Your task to perform on an android device: Search for razer blackwidow on ebay.com, select the first entry, add it to the cart, then select checkout. Image 0: 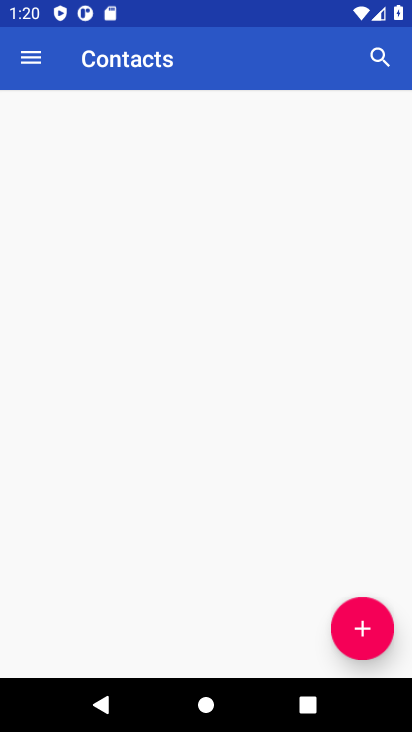
Step 0: press home button
Your task to perform on an android device: Search for razer blackwidow on ebay.com, select the first entry, add it to the cart, then select checkout. Image 1: 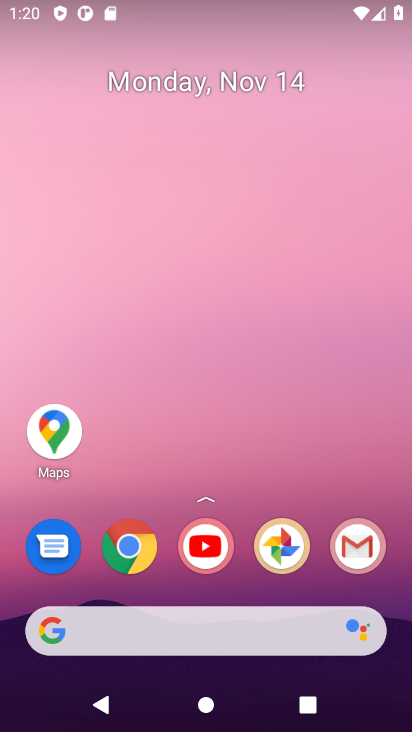
Step 1: drag from (222, 535) to (210, 54)
Your task to perform on an android device: Search for razer blackwidow on ebay.com, select the first entry, add it to the cart, then select checkout. Image 2: 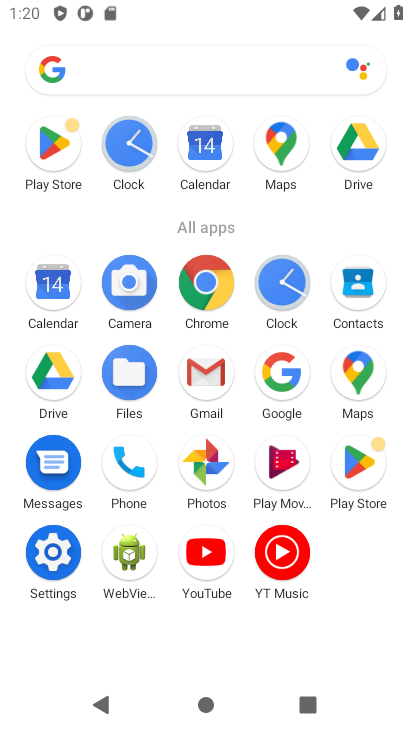
Step 2: click (219, 286)
Your task to perform on an android device: Search for razer blackwidow on ebay.com, select the first entry, add it to the cart, then select checkout. Image 3: 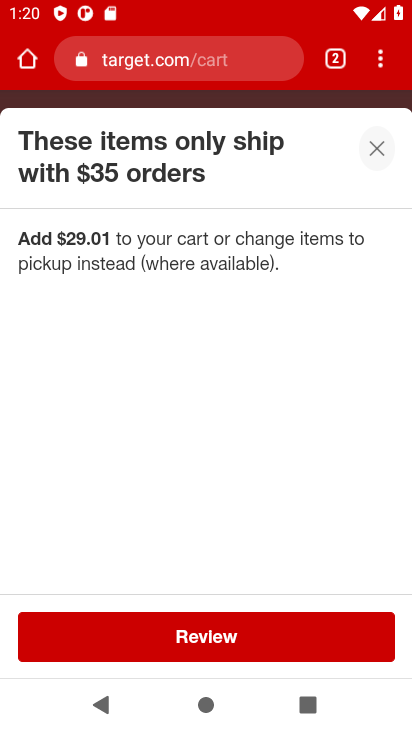
Step 3: click (211, 67)
Your task to perform on an android device: Search for razer blackwidow on ebay.com, select the first entry, add it to the cart, then select checkout. Image 4: 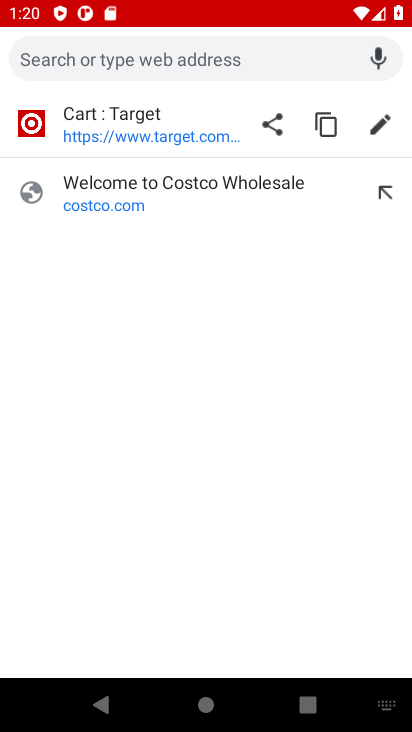
Step 4: type "ebay.com"
Your task to perform on an android device: Search for razer blackwidow on ebay.com, select the first entry, add it to the cart, then select checkout. Image 5: 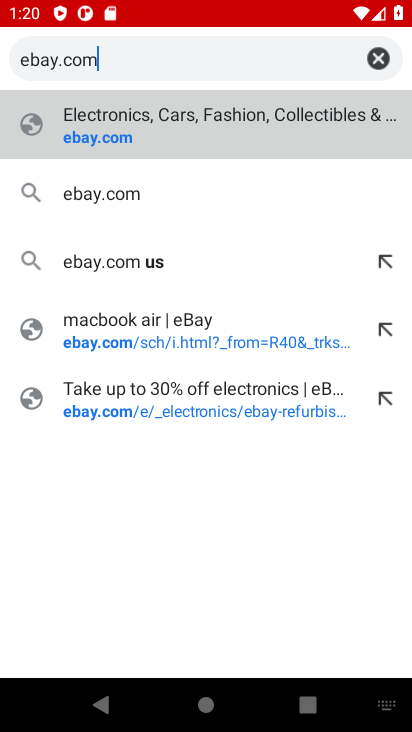
Step 5: press enter
Your task to perform on an android device: Search for razer blackwidow on ebay.com, select the first entry, add it to the cart, then select checkout. Image 6: 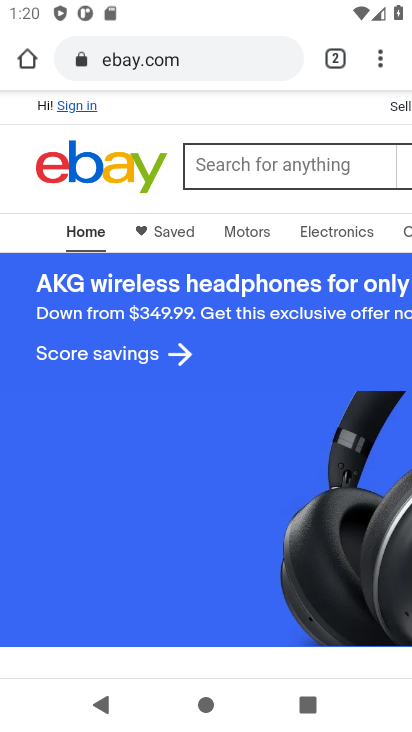
Step 6: click (288, 164)
Your task to perform on an android device: Search for razer blackwidow on ebay.com, select the first entry, add it to the cart, then select checkout. Image 7: 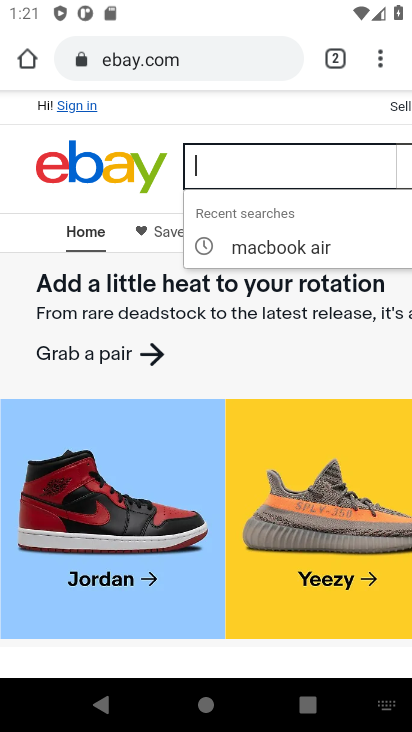
Step 7: type "razer blackwidow "
Your task to perform on an android device: Search for razer blackwidow on ebay.com, select the first entry, add it to the cart, then select checkout. Image 8: 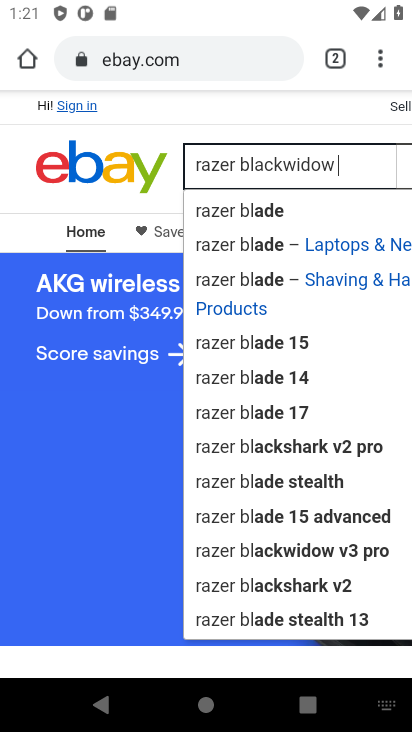
Step 8: press enter
Your task to perform on an android device: Search for razer blackwidow on ebay.com, select the first entry, add it to the cart, then select checkout. Image 9: 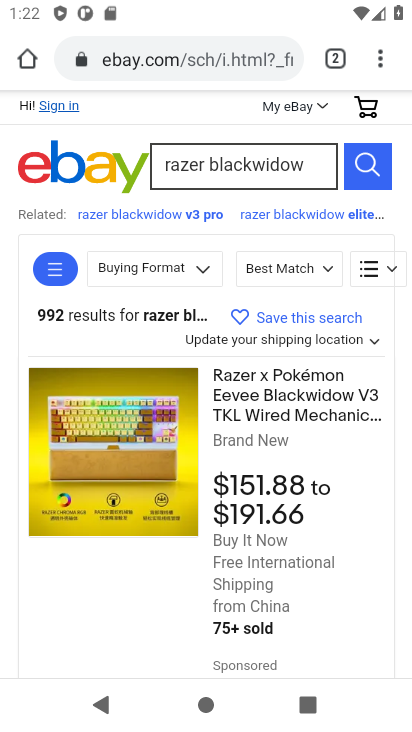
Step 9: drag from (315, 463) to (357, 273)
Your task to perform on an android device: Search for razer blackwidow on ebay.com, select the first entry, add it to the cart, then select checkout. Image 10: 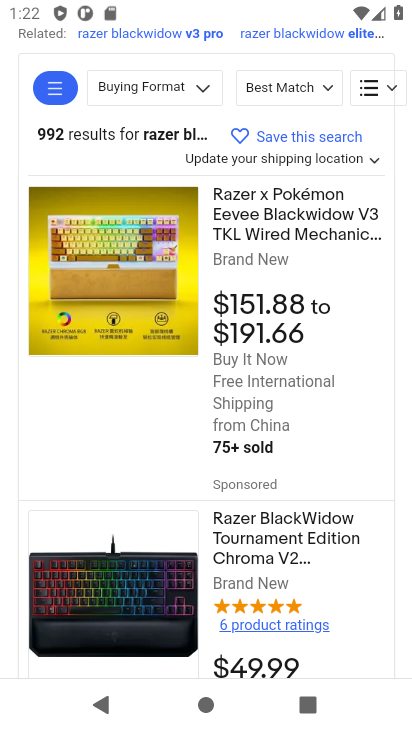
Step 10: click (278, 214)
Your task to perform on an android device: Search for razer blackwidow on ebay.com, select the first entry, add it to the cart, then select checkout. Image 11: 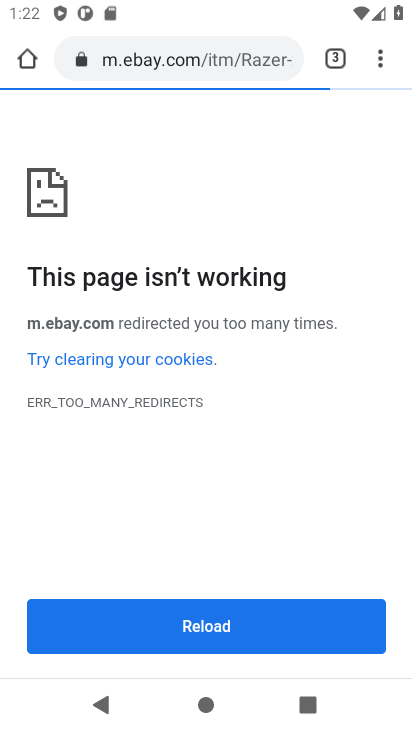
Step 11: click (194, 637)
Your task to perform on an android device: Search for razer blackwidow on ebay.com, select the first entry, add it to the cart, then select checkout. Image 12: 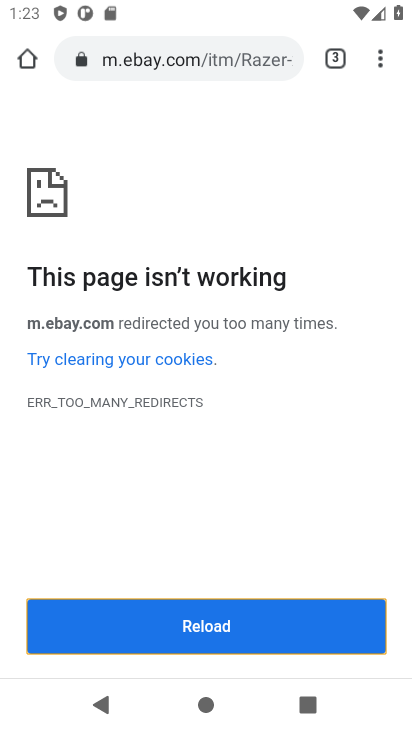
Step 12: task complete